Your task to perform on an android device: Go to Maps Image 0: 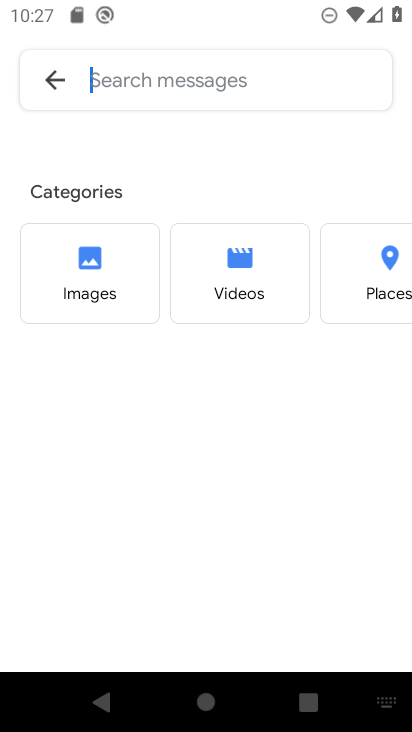
Step 0: press home button
Your task to perform on an android device: Go to Maps Image 1: 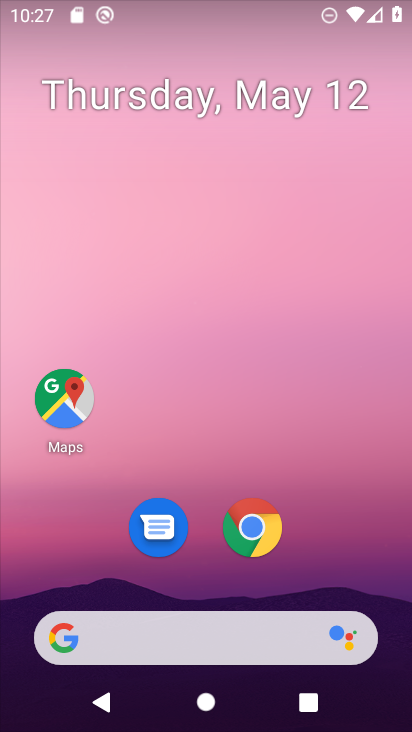
Step 1: click (56, 417)
Your task to perform on an android device: Go to Maps Image 2: 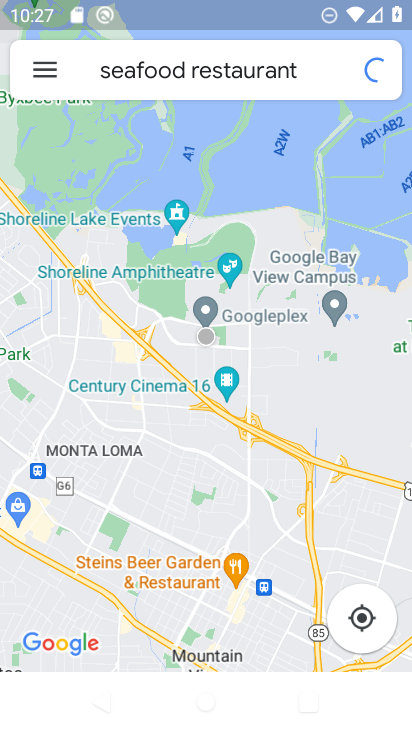
Step 2: task complete